Your task to perform on an android device: set the timer Image 0: 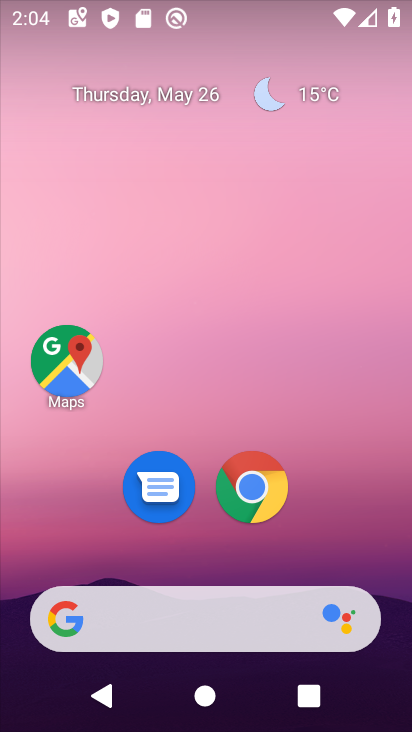
Step 0: drag from (164, 555) to (178, 149)
Your task to perform on an android device: set the timer Image 1: 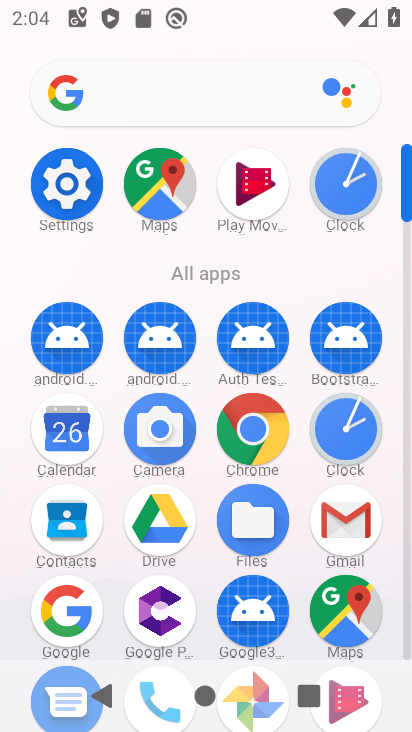
Step 1: click (339, 200)
Your task to perform on an android device: set the timer Image 2: 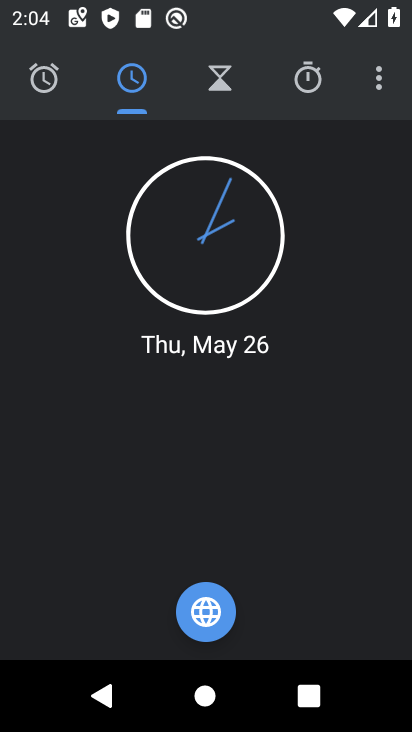
Step 2: click (210, 89)
Your task to perform on an android device: set the timer Image 3: 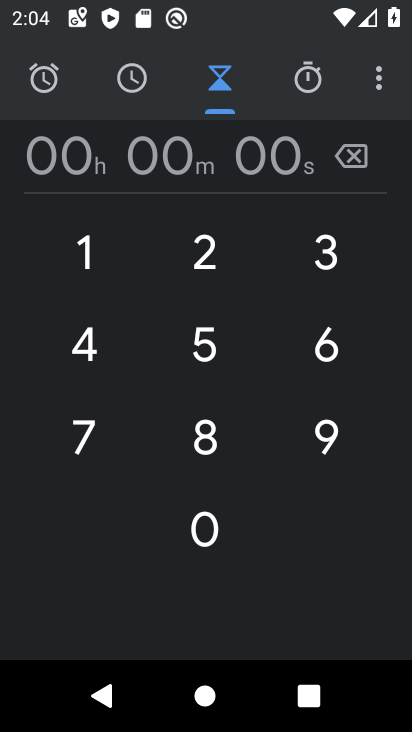
Step 3: click (248, 162)
Your task to perform on an android device: set the timer Image 4: 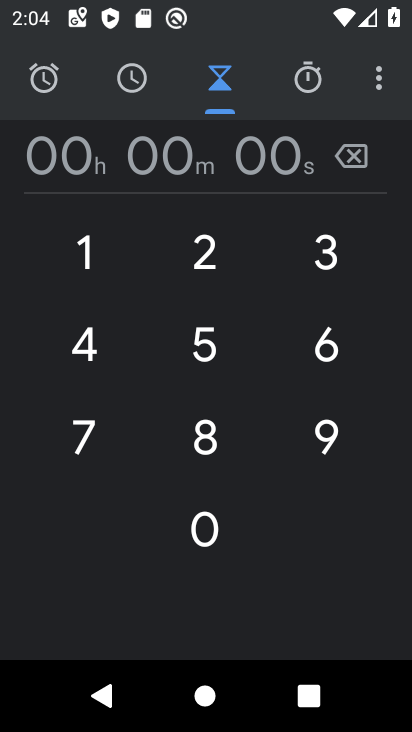
Step 4: type "11"
Your task to perform on an android device: set the timer Image 5: 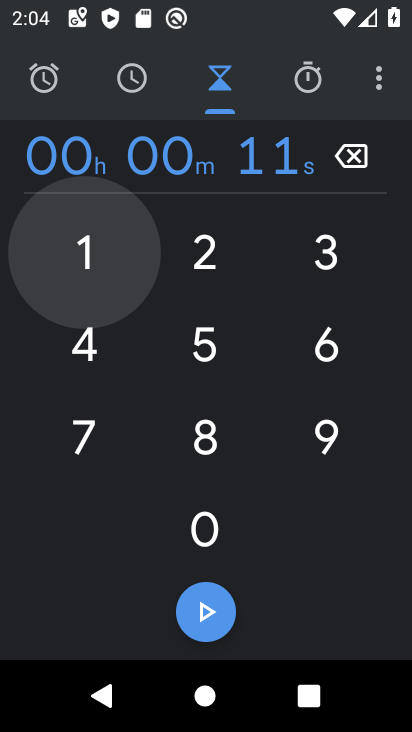
Step 5: click (222, 612)
Your task to perform on an android device: set the timer Image 6: 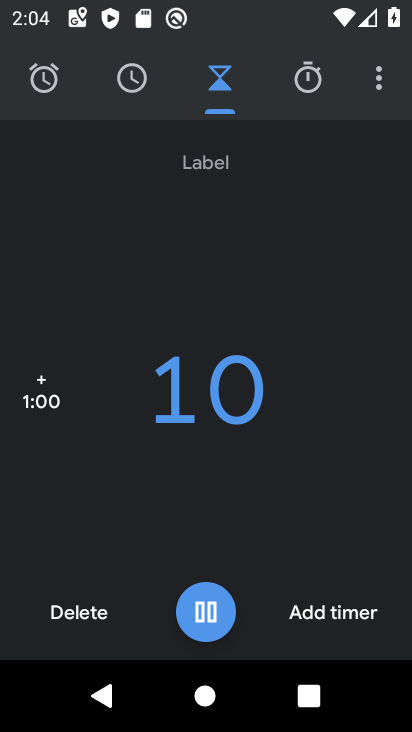
Step 6: task complete